Your task to perform on an android device: change the upload size in google photos Image 0: 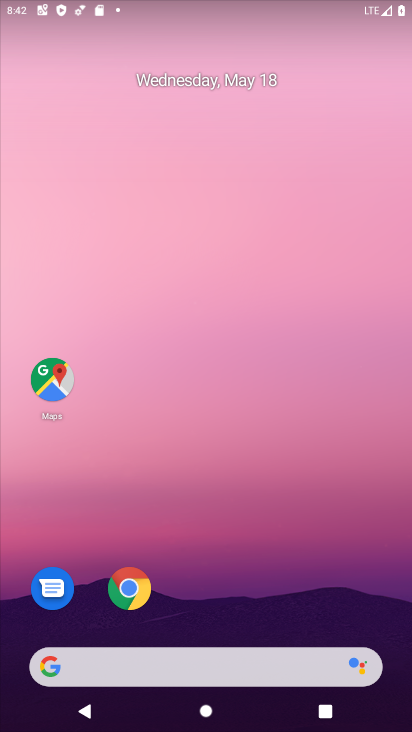
Step 0: drag from (316, 630) to (380, 1)
Your task to perform on an android device: change the upload size in google photos Image 1: 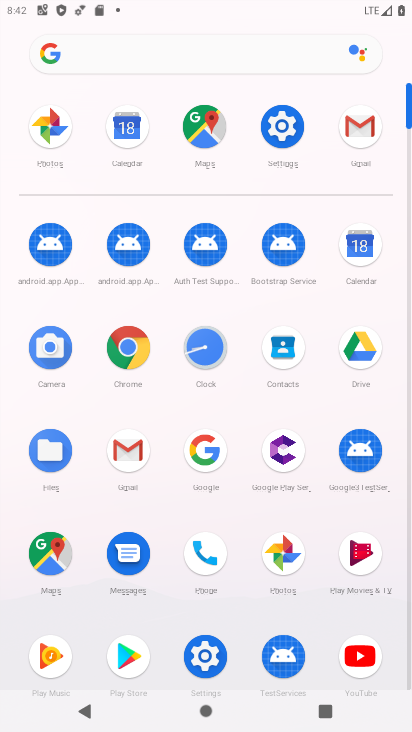
Step 1: click (288, 556)
Your task to perform on an android device: change the upload size in google photos Image 2: 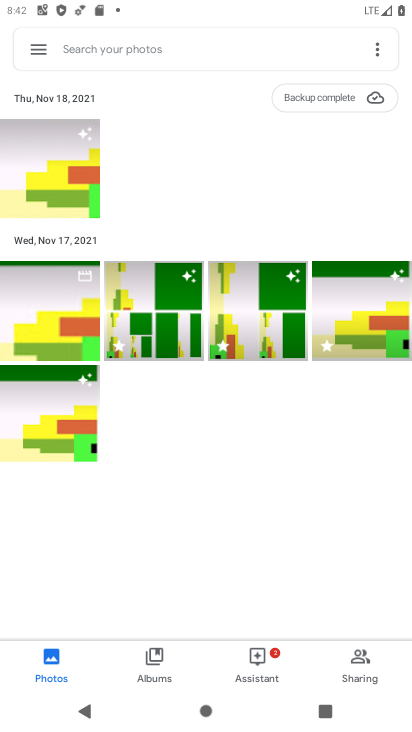
Step 2: click (34, 50)
Your task to perform on an android device: change the upload size in google photos Image 3: 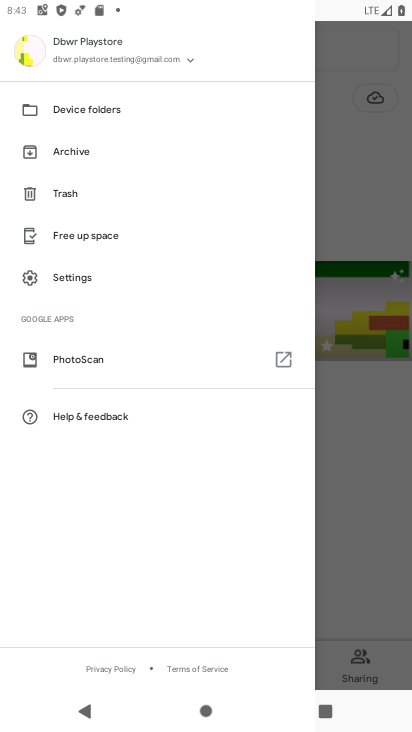
Step 3: click (78, 283)
Your task to perform on an android device: change the upload size in google photos Image 4: 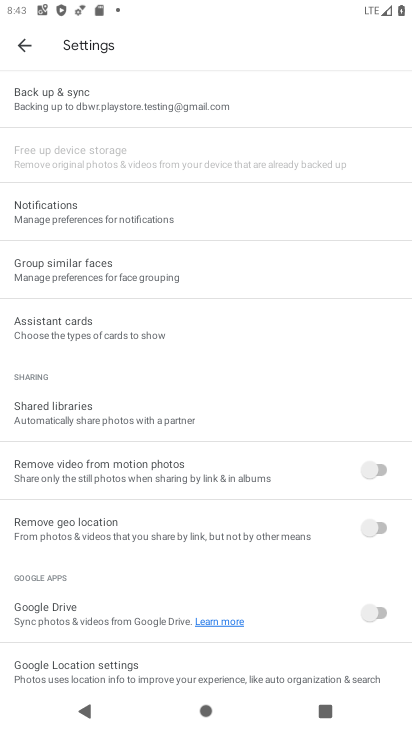
Step 4: click (66, 103)
Your task to perform on an android device: change the upload size in google photos Image 5: 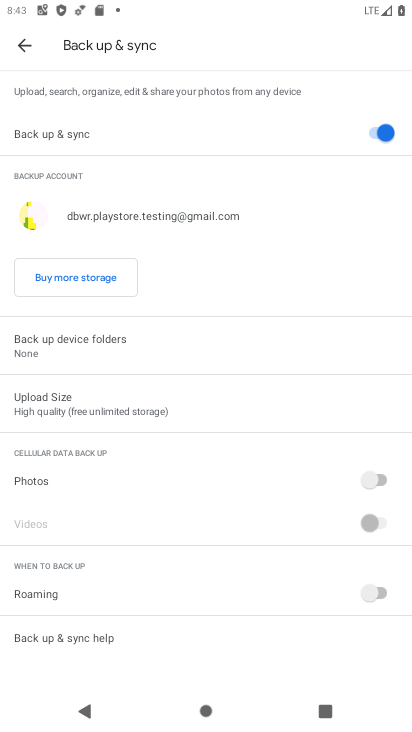
Step 5: click (46, 401)
Your task to perform on an android device: change the upload size in google photos Image 6: 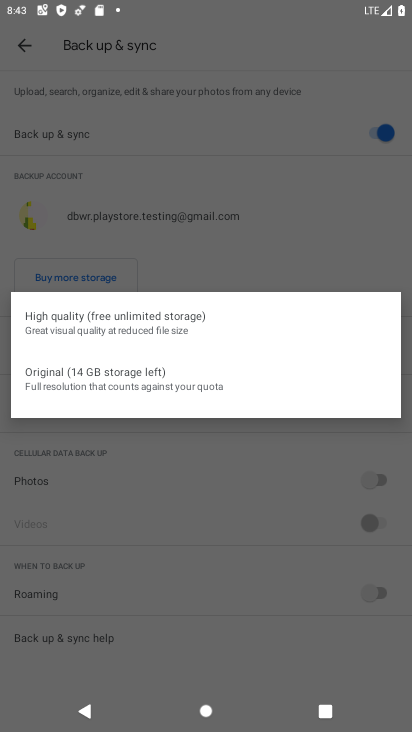
Step 6: click (50, 390)
Your task to perform on an android device: change the upload size in google photos Image 7: 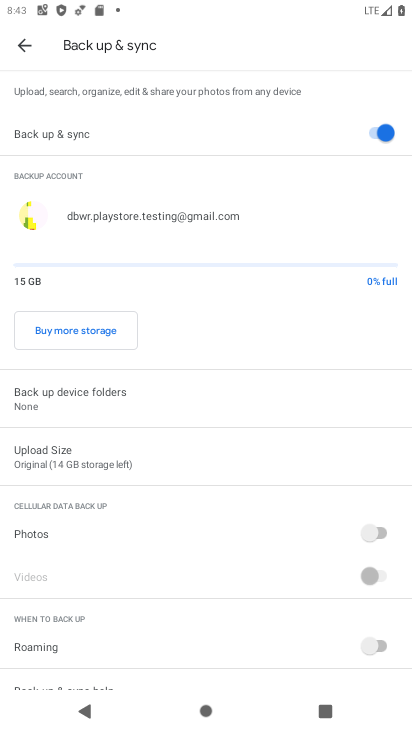
Step 7: task complete